Your task to perform on an android device: Open my contact list Image 0: 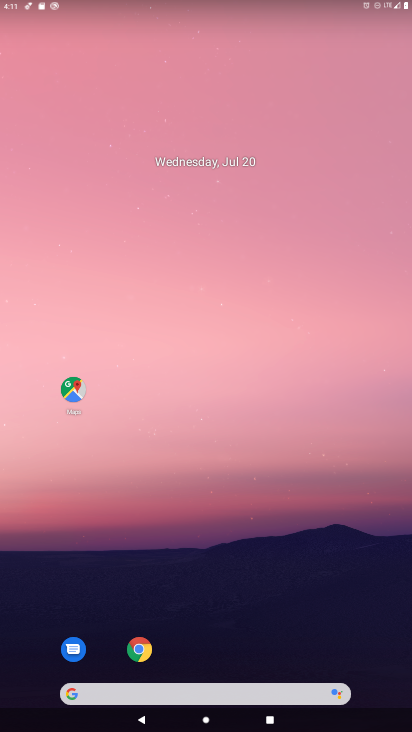
Step 0: drag from (190, 693) to (140, 121)
Your task to perform on an android device: Open my contact list Image 1: 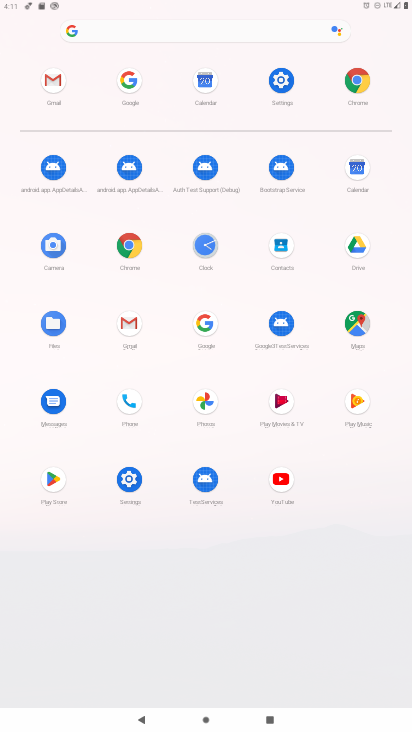
Step 1: click (282, 243)
Your task to perform on an android device: Open my contact list Image 2: 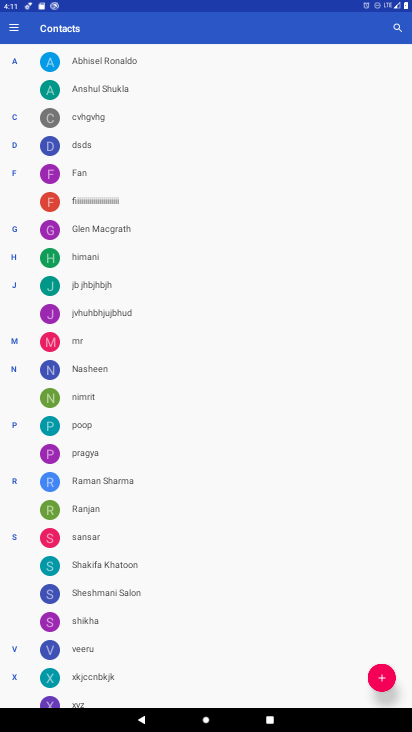
Step 2: task complete